Your task to perform on an android device: manage bookmarks in the chrome app Image 0: 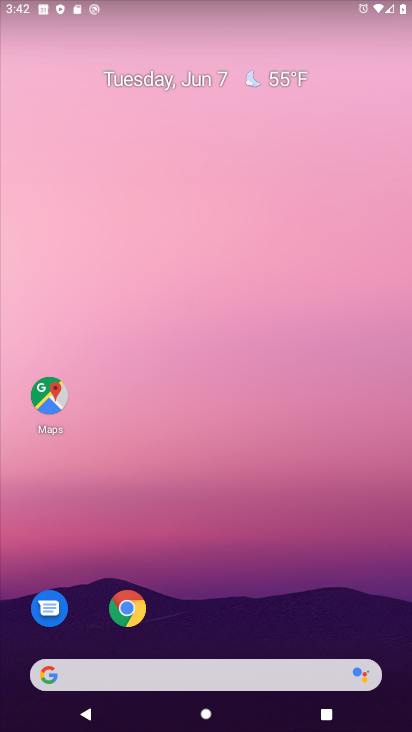
Step 0: click (125, 621)
Your task to perform on an android device: manage bookmarks in the chrome app Image 1: 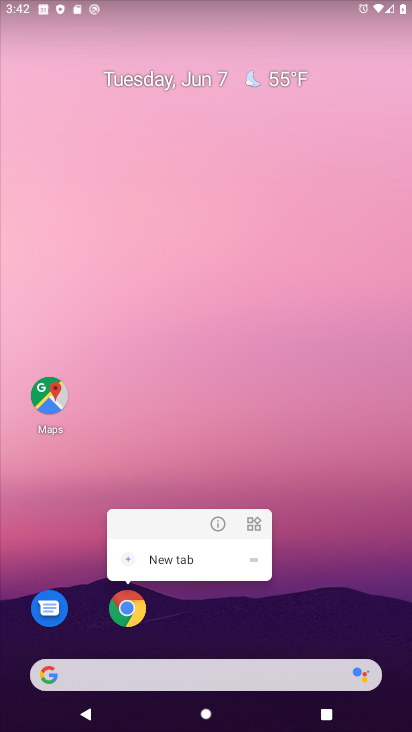
Step 1: click (125, 619)
Your task to perform on an android device: manage bookmarks in the chrome app Image 2: 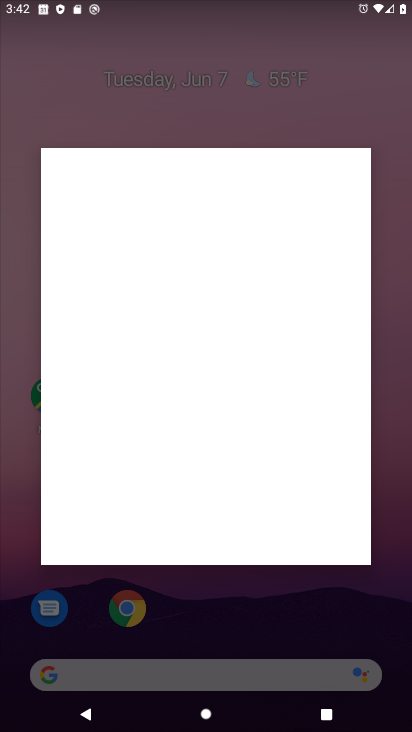
Step 2: click (321, 462)
Your task to perform on an android device: manage bookmarks in the chrome app Image 3: 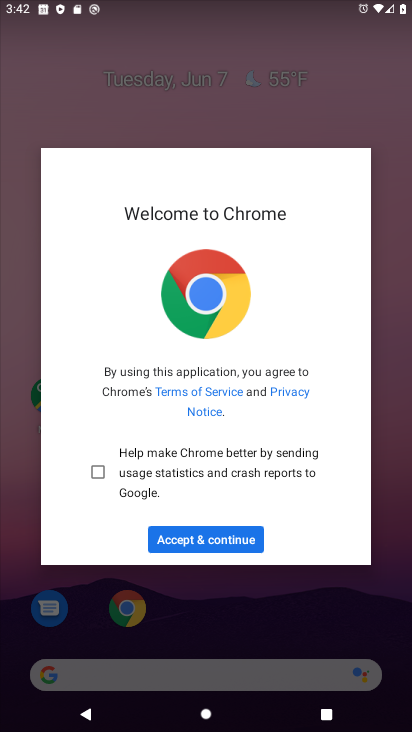
Step 3: click (104, 473)
Your task to perform on an android device: manage bookmarks in the chrome app Image 4: 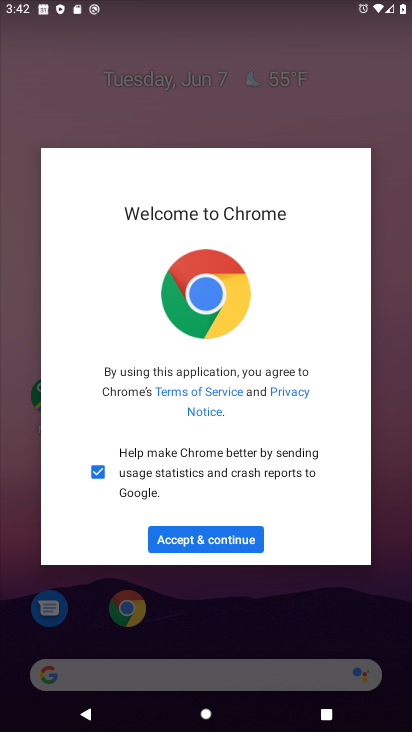
Step 4: click (227, 523)
Your task to perform on an android device: manage bookmarks in the chrome app Image 5: 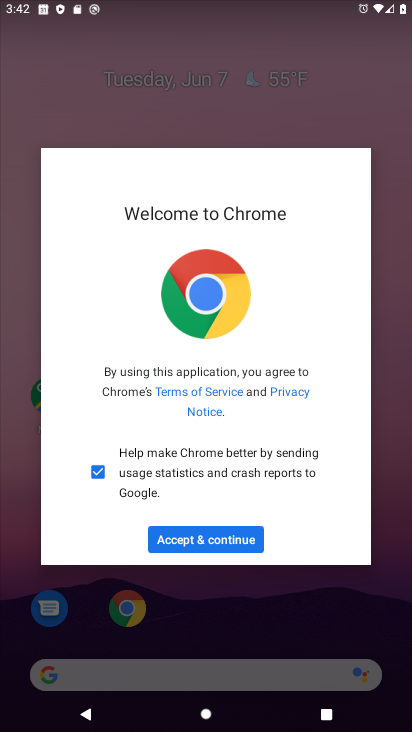
Step 5: click (242, 539)
Your task to perform on an android device: manage bookmarks in the chrome app Image 6: 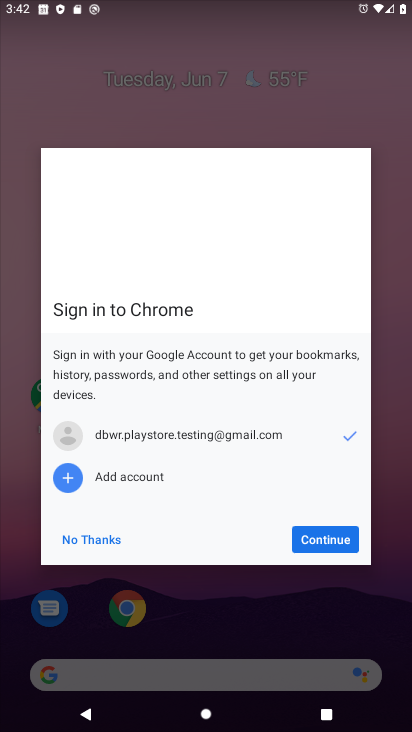
Step 6: click (318, 545)
Your task to perform on an android device: manage bookmarks in the chrome app Image 7: 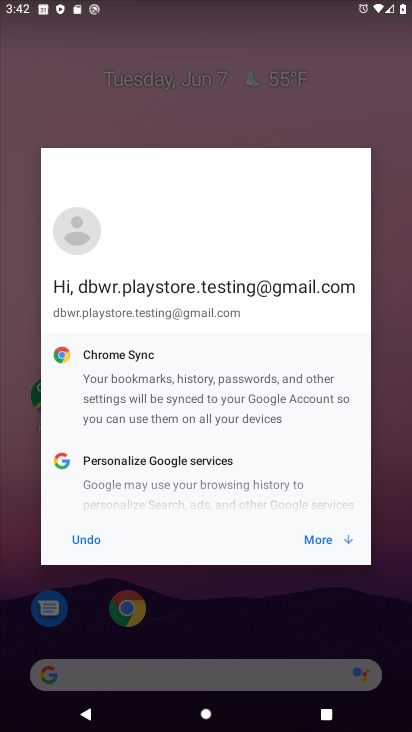
Step 7: click (292, 533)
Your task to perform on an android device: manage bookmarks in the chrome app Image 8: 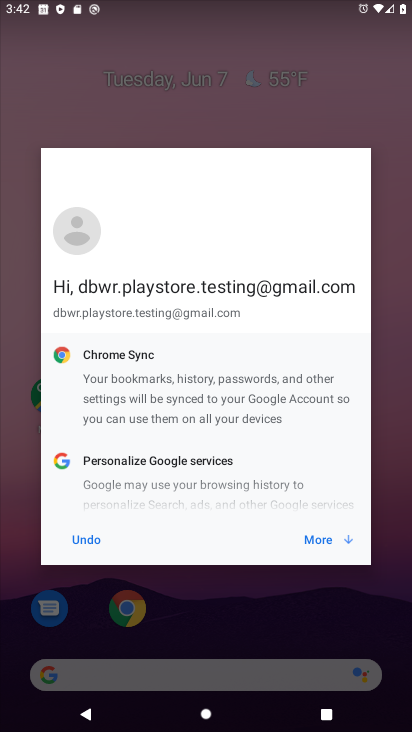
Step 8: click (309, 536)
Your task to perform on an android device: manage bookmarks in the chrome app Image 9: 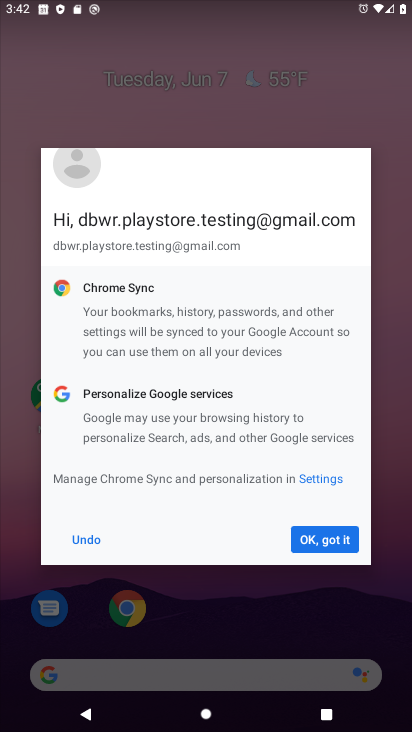
Step 9: click (330, 538)
Your task to perform on an android device: manage bookmarks in the chrome app Image 10: 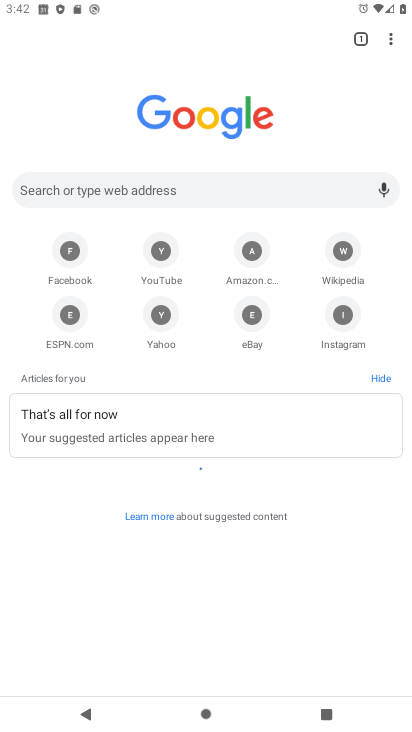
Step 10: click (389, 46)
Your task to perform on an android device: manage bookmarks in the chrome app Image 11: 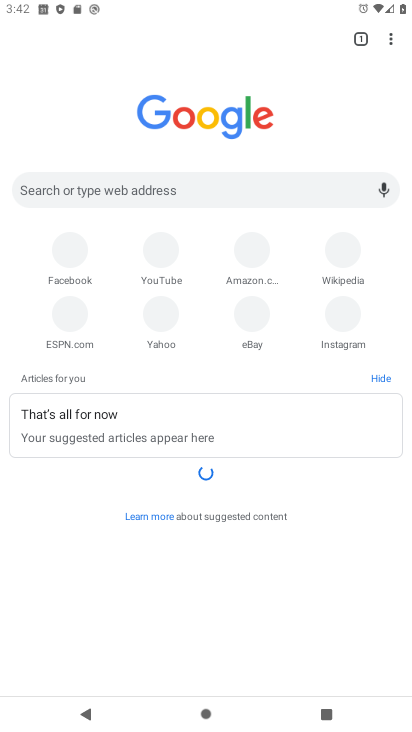
Step 11: task complete